Your task to perform on an android device: Open the web browser Image 0: 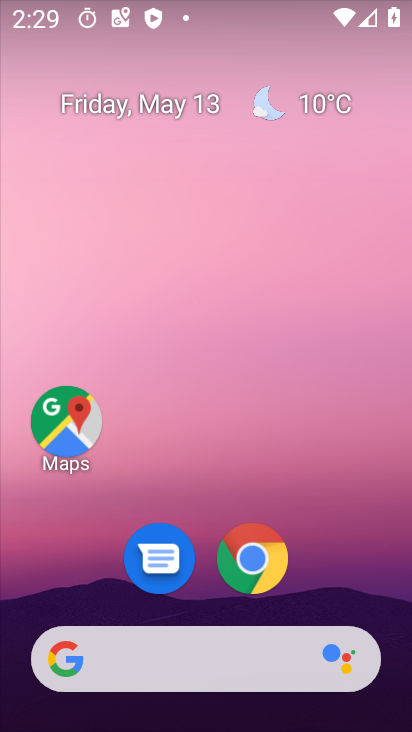
Step 0: click (248, 567)
Your task to perform on an android device: Open the web browser Image 1: 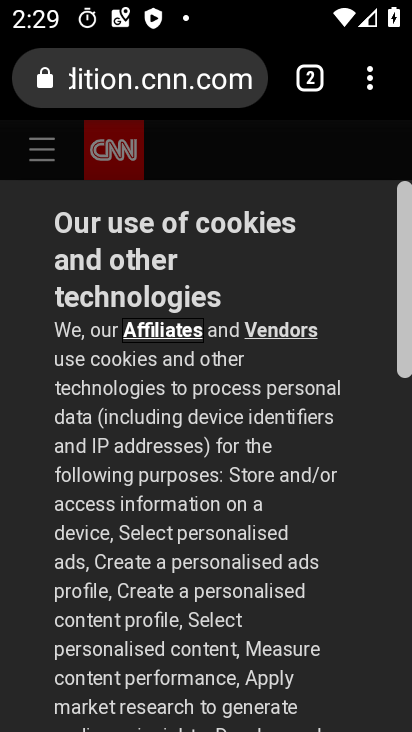
Step 1: task complete